Your task to perform on an android device: Open the phone app and click the voicemail tab. Image 0: 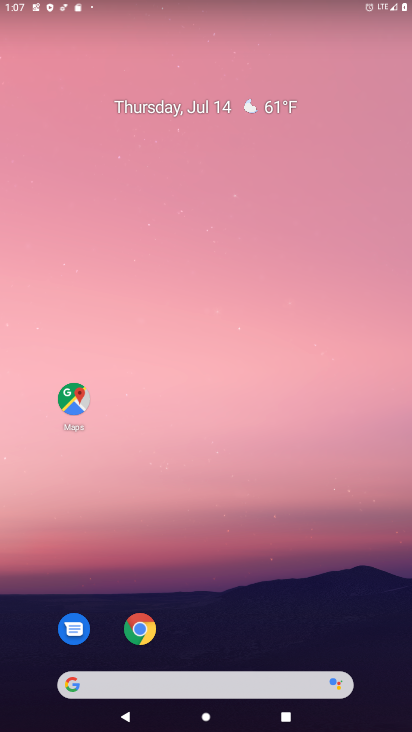
Step 0: drag from (285, 581) to (193, 176)
Your task to perform on an android device: Open the phone app and click the voicemail tab. Image 1: 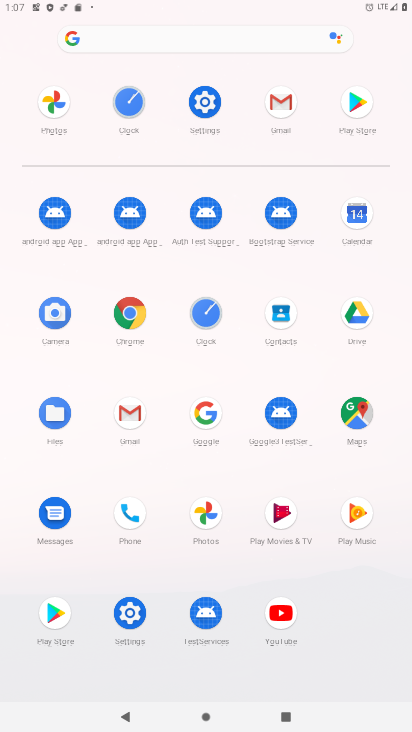
Step 1: click (278, 515)
Your task to perform on an android device: Open the phone app and click the voicemail tab. Image 2: 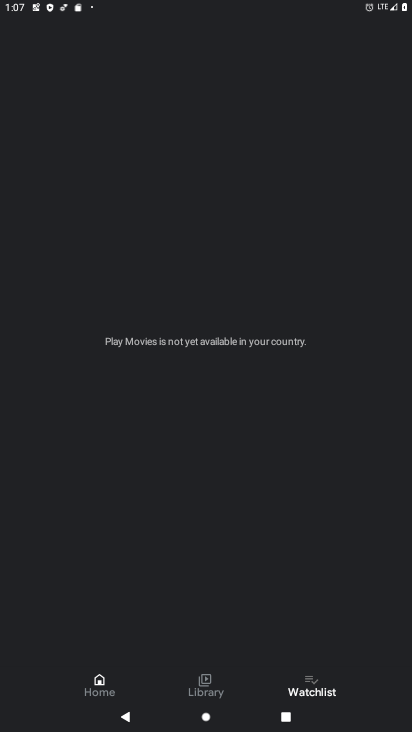
Step 2: click (316, 687)
Your task to perform on an android device: Open the phone app and click the voicemail tab. Image 3: 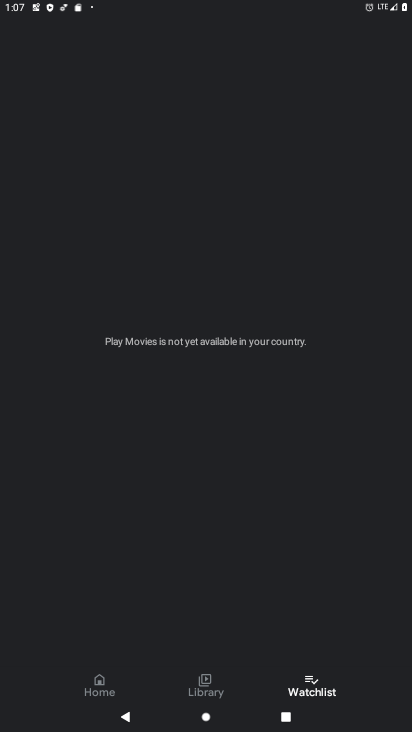
Step 3: task complete